Your task to perform on an android device: set the stopwatch Image 0: 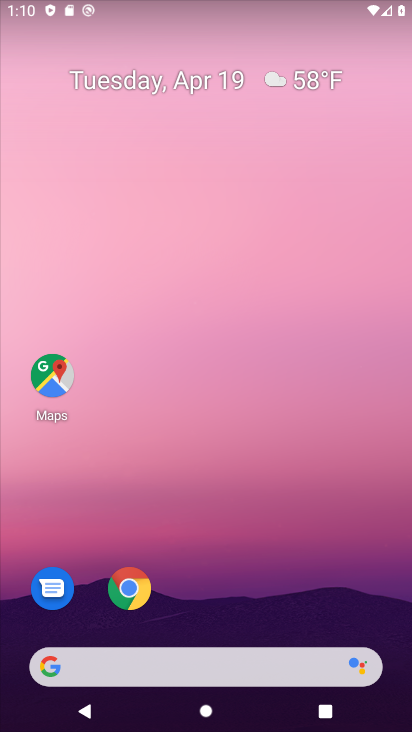
Step 0: drag from (233, 588) to (195, 222)
Your task to perform on an android device: set the stopwatch Image 1: 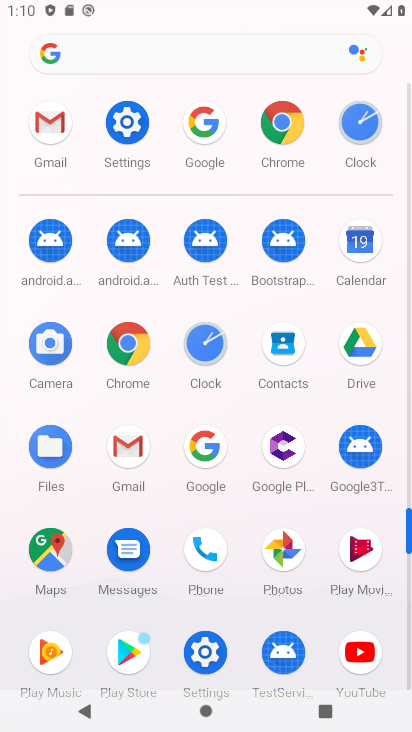
Step 1: click (354, 133)
Your task to perform on an android device: set the stopwatch Image 2: 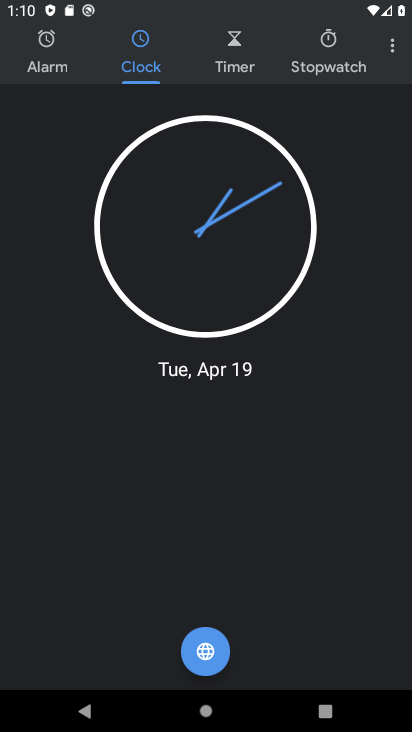
Step 2: click (328, 58)
Your task to perform on an android device: set the stopwatch Image 3: 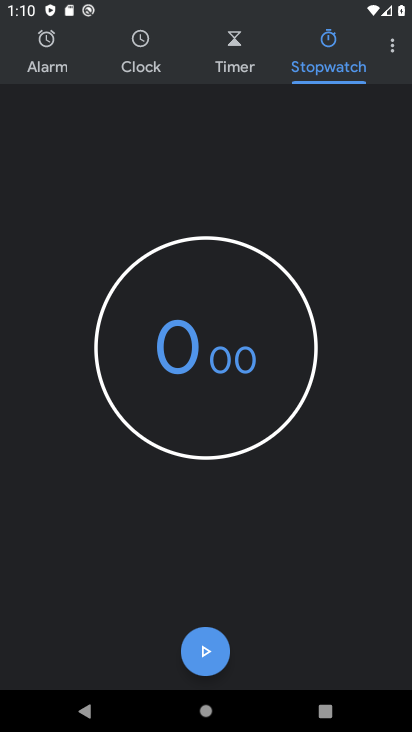
Step 3: click (216, 643)
Your task to perform on an android device: set the stopwatch Image 4: 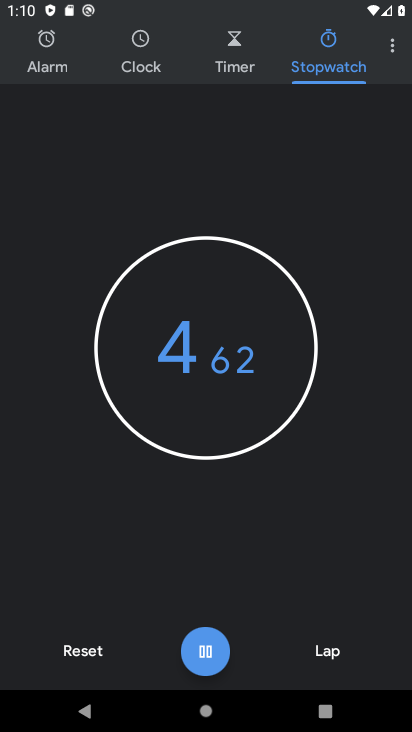
Step 4: task complete